Your task to perform on an android device: turn off picture-in-picture Image 0: 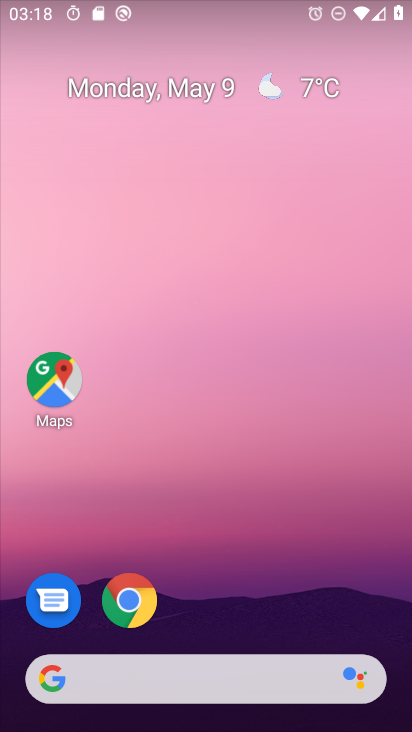
Step 0: click (132, 621)
Your task to perform on an android device: turn off picture-in-picture Image 1: 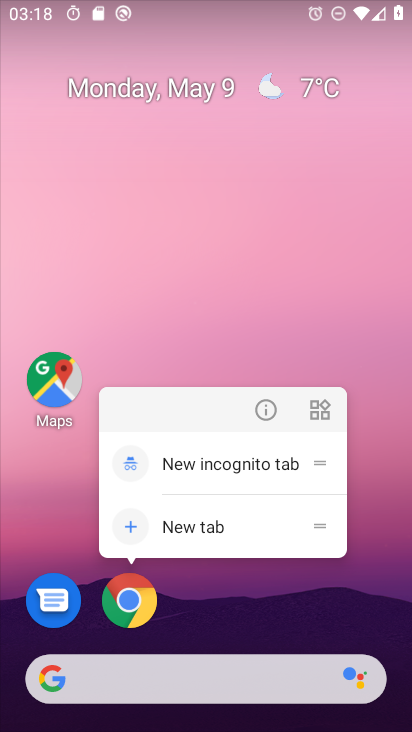
Step 1: click (264, 415)
Your task to perform on an android device: turn off picture-in-picture Image 2: 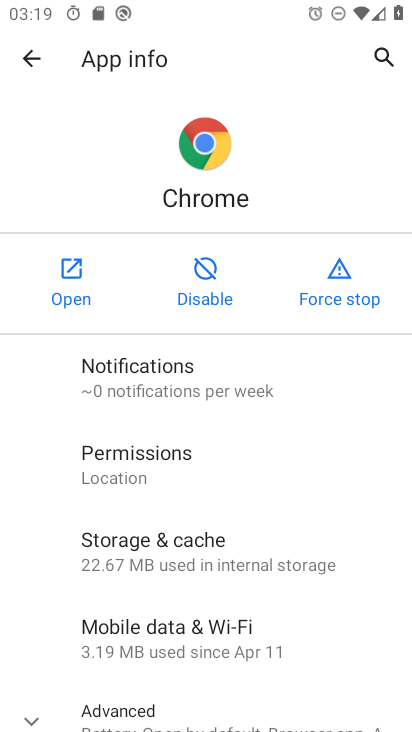
Step 2: drag from (220, 554) to (168, 335)
Your task to perform on an android device: turn off picture-in-picture Image 3: 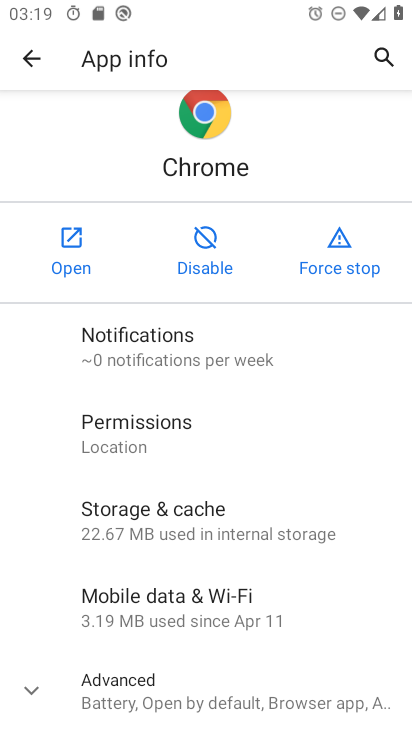
Step 3: click (120, 669)
Your task to perform on an android device: turn off picture-in-picture Image 4: 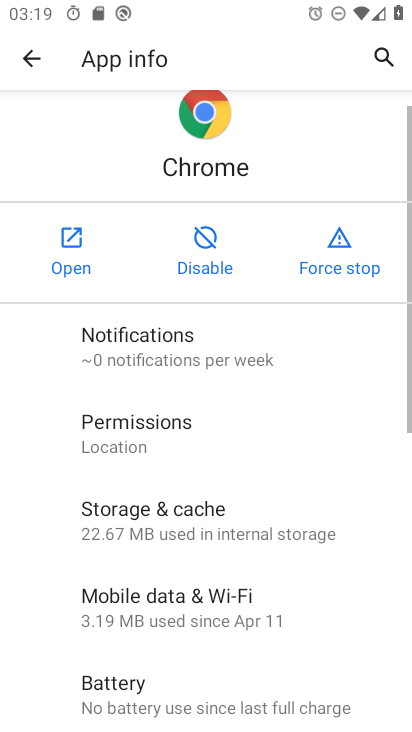
Step 4: drag from (163, 666) to (163, 393)
Your task to perform on an android device: turn off picture-in-picture Image 5: 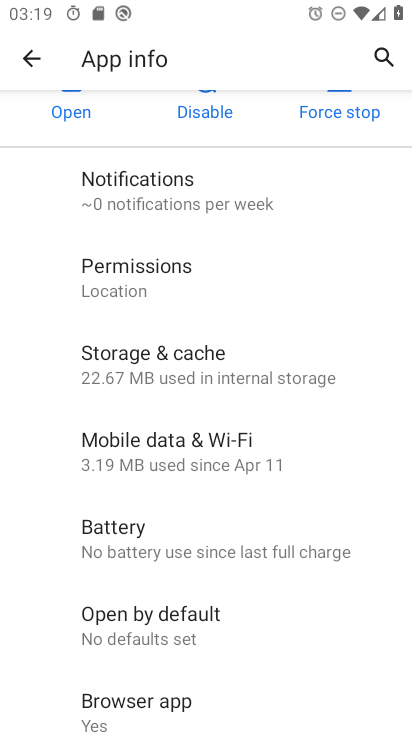
Step 5: drag from (143, 563) to (144, 274)
Your task to perform on an android device: turn off picture-in-picture Image 6: 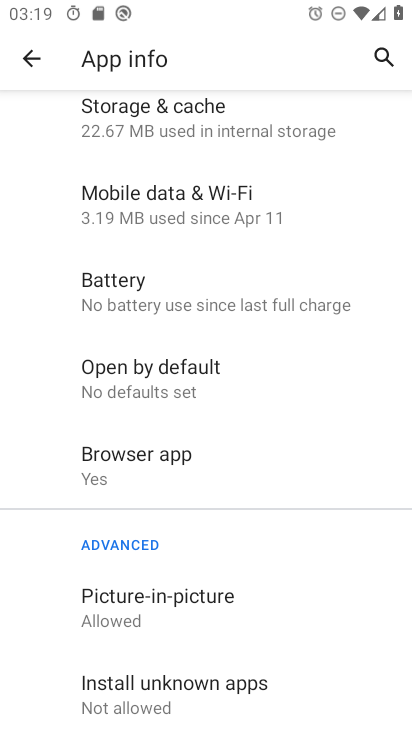
Step 6: click (142, 613)
Your task to perform on an android device: turn off picture-in-picture Image 7: 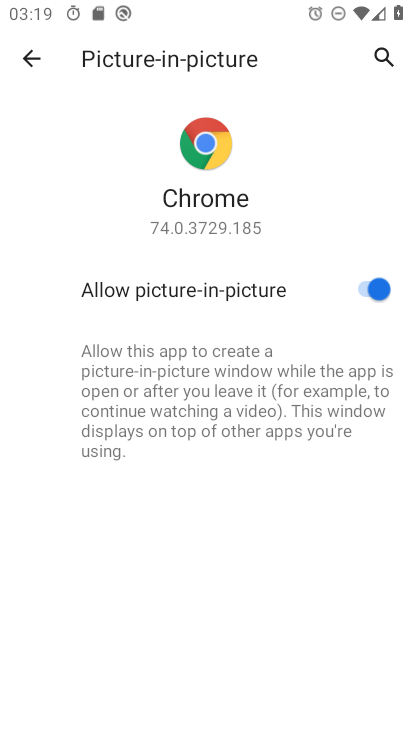
Step 7: click (366, 284)
Your task to perform on an android device: turn off picture-in-picture Image 8: 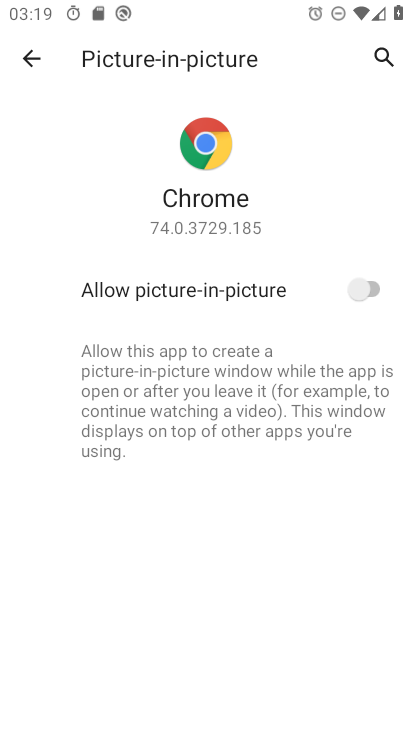
Step 8: task complete